Your task to perform on an android device: Open the calendar app, open the side menu, and click the "Day" option Image 0: 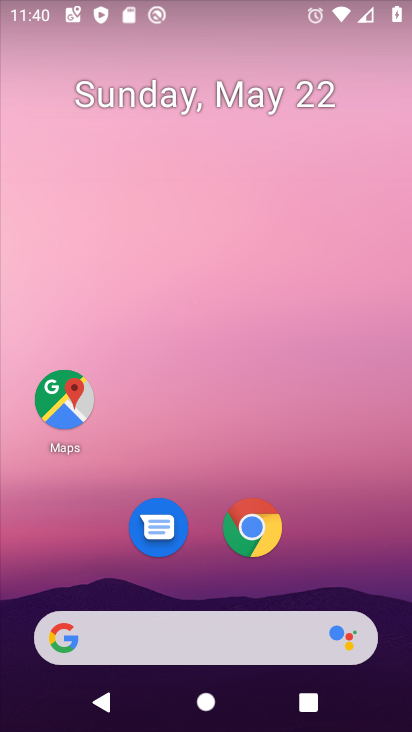
Step 0: click (272, 531)
Your task to perform on an android device: Open the calendar app, open the side menu, and click the "Day" option Image 1: 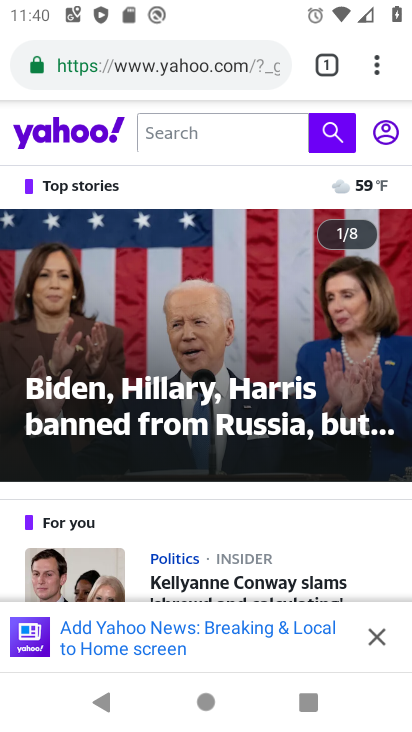
Step 1: task complete